Your task to perform on an android device: Open the calendar and show me this week's events? Image 0: 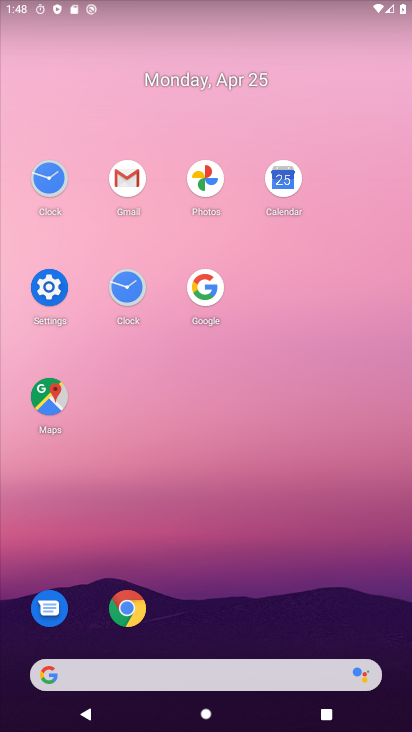
Step 0: drag from (291, 435) to (278, 89)
Your task to perform on an android device: Open the calendar and show me this week's events? Image 1: 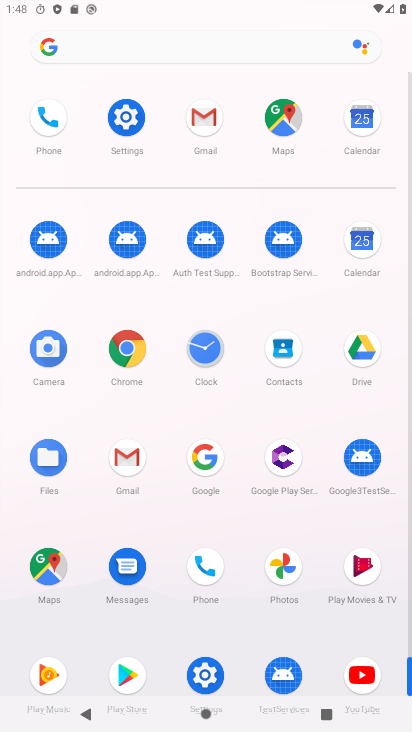
Step 1: click (361, 239)
Your task to perform on an android device: Open the calendar and show me this week's events? Image 2: 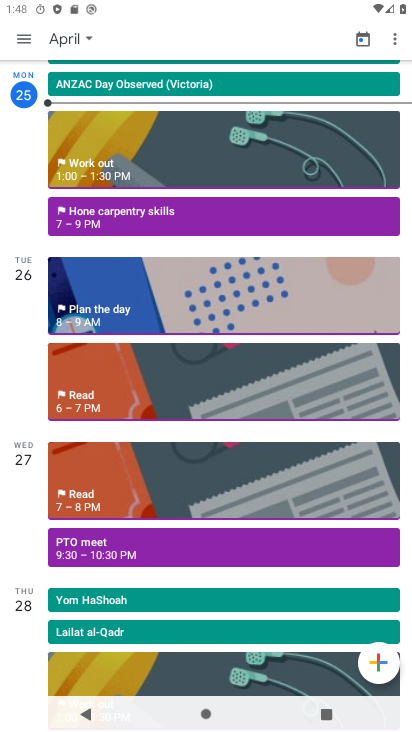
Step 2: click (15, 47)
Your task to perform on an android device: Open the calendar and show me this week's events? Image 3: 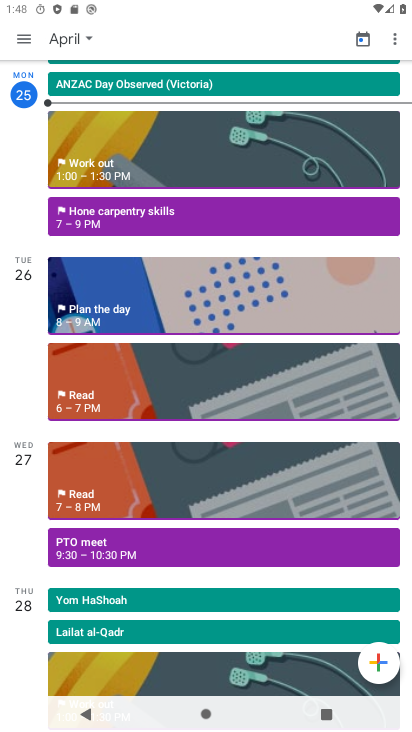
Step 3: click (27, 40)
Your task to perform on an android device: Open the calendar and show me this week's events? Image 4: 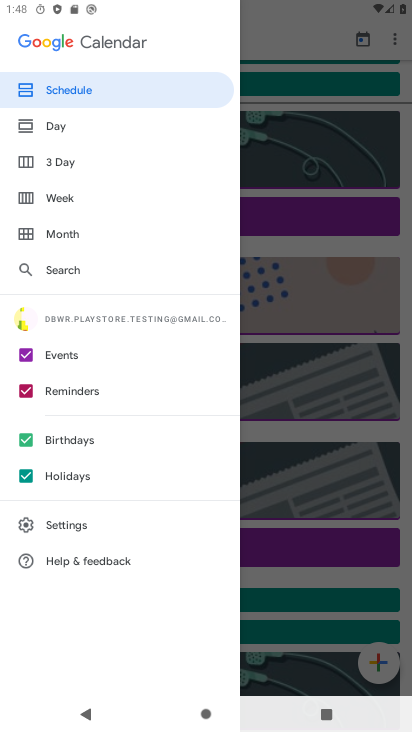
Step 4: click (89, 202)
Your task to perform on an android device: Open the calendar and show me this week's events? Image 5: 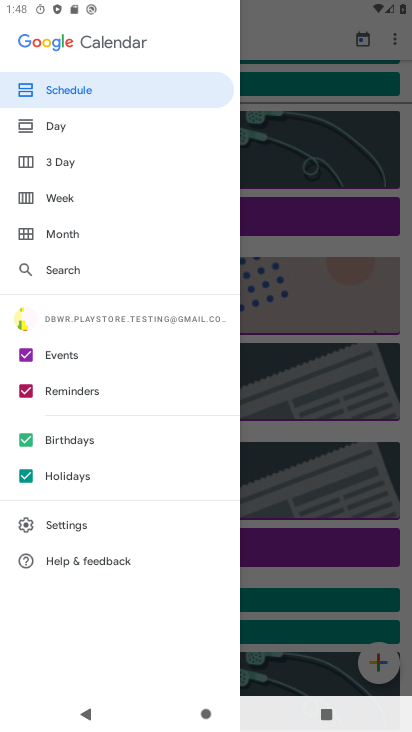
Step 5: click (89, 202)
Your task to perform on an android device: Open the calendar and show me this week's events? Image 6: 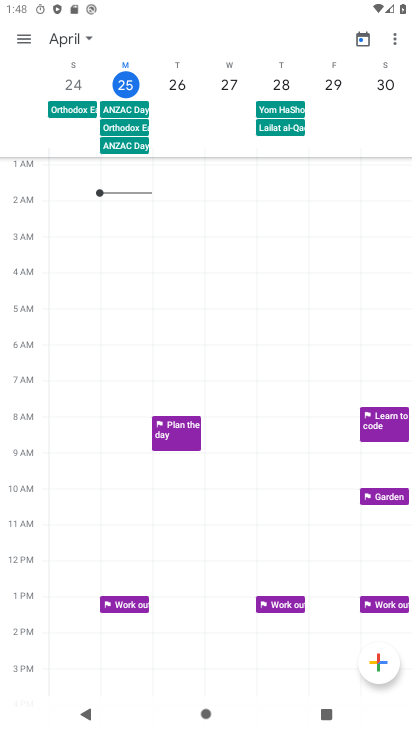
Step 6: task complete